Your task to perform on an android device: see sites visited before in the chrome app Image 0: 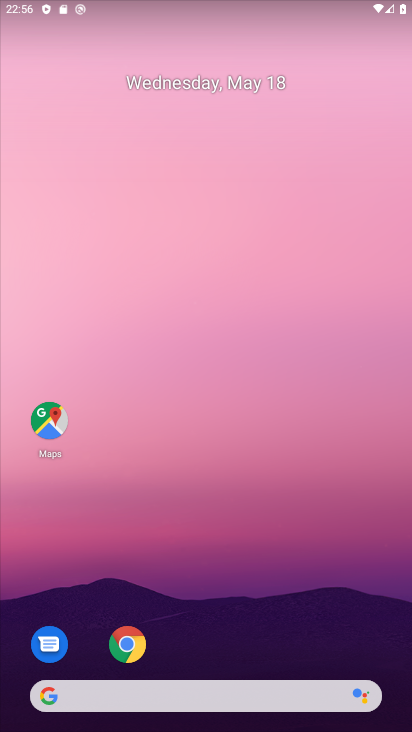
Step 0: click (131, 641)
Your task to perform on an android device: see sites visited before in the chrome app Image 1: 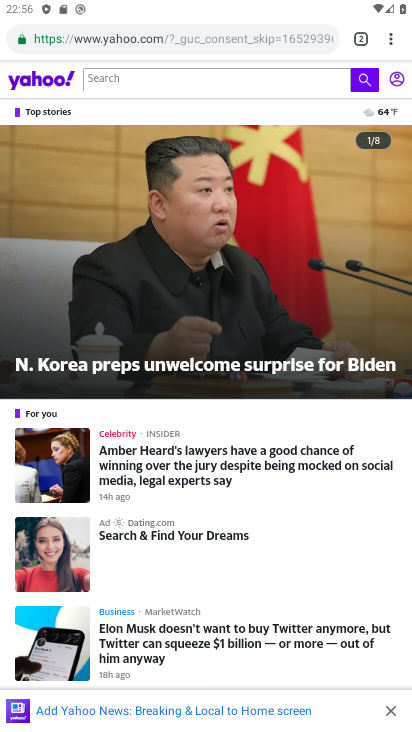
Step 1: drag from (388, 38) to (257, 476)
Your task to perform on an android device: see sites visited before in the chrome app Image 2: 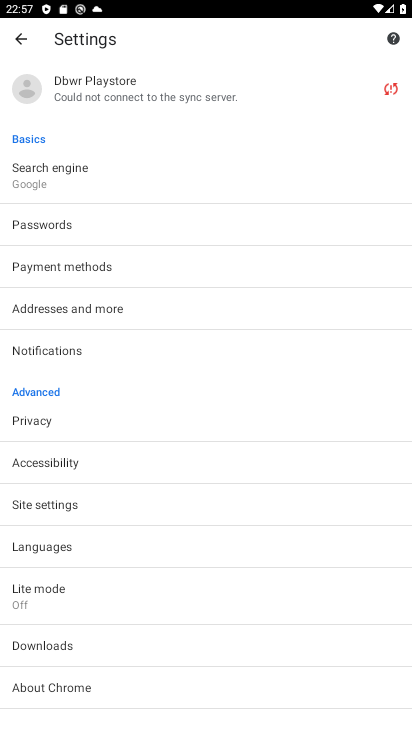
Step 2: click (20, 44)
Your task to perform on an android device: see sites visited before in the chrome app Image 3: 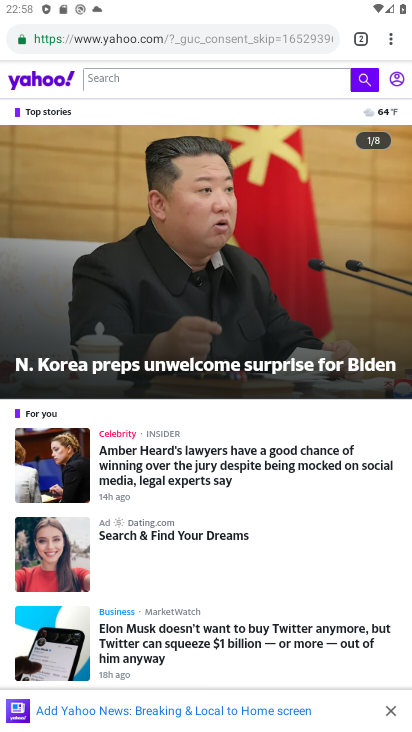
Step 3: click (391, 30)
Your task to perform on an android device: see sites visited before in the chrome app Image 4: 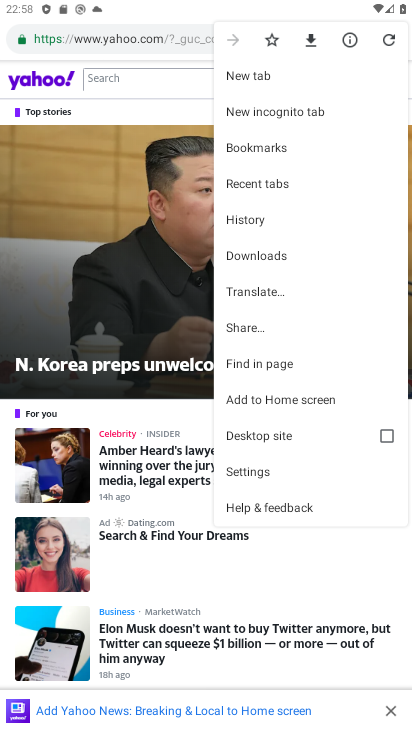
Step 4: click (278, 182)
Your task to perform on an android device: see sites visited before in the chrome app Image 5: 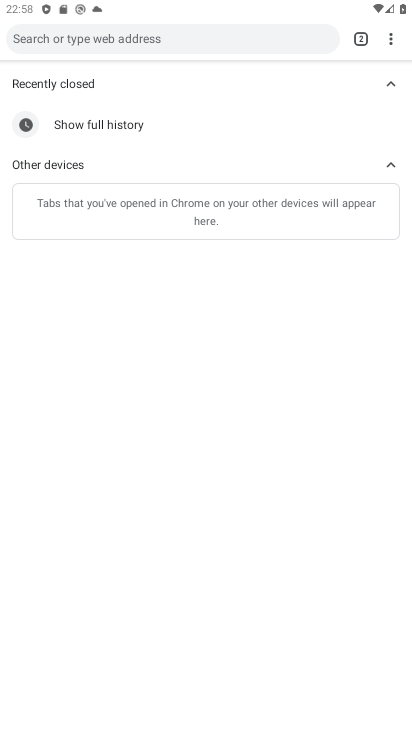
Step 5: click (388, 39)
Your task to perform on an android device: see sites visited before in the chrome app Image 6: 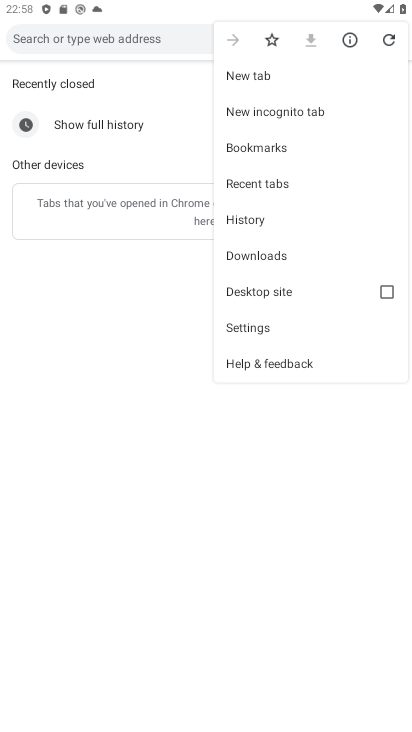
Step 6: click (262, 221)
Your task to perform on an android device: see sites visited before in the chrome app Image 7: 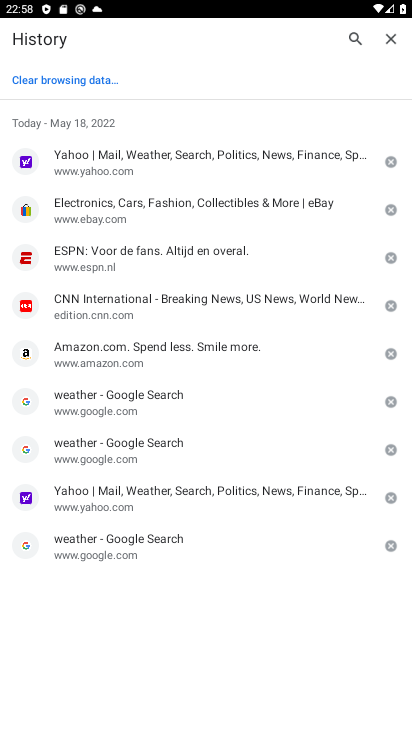
Step 7: task complete